Your task to perform on an android device: see creations saved in the google photos Image 0: 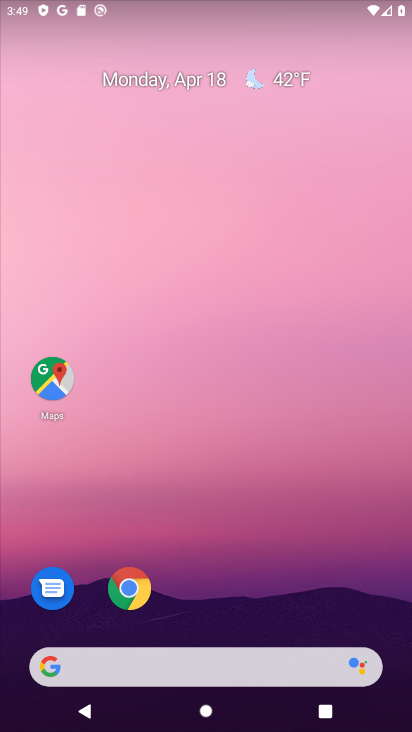
Step 0: drag from (220, 588) to (227, 161)
Your task to perform on an android device: see creations saved in the google photos Image 1: 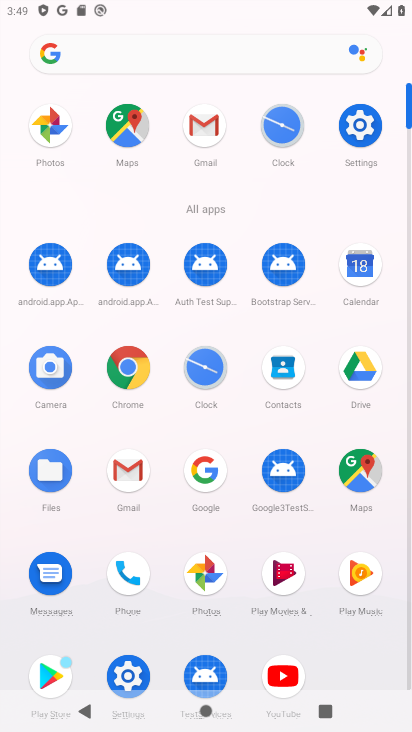
Step 1: click (52, 133)
Your task to perform on an android device: see creations saved in the google photos Image 2: 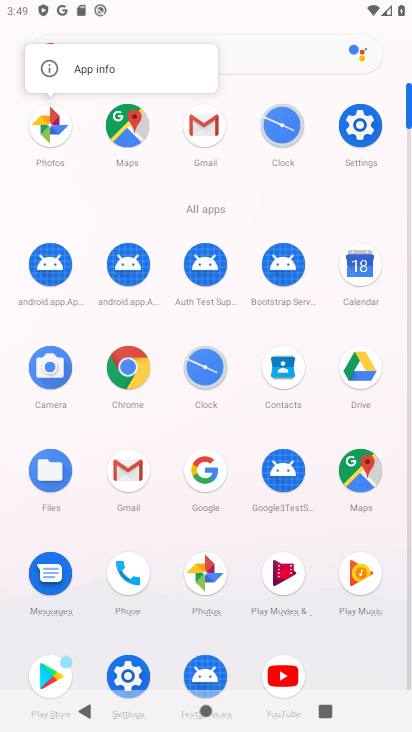
Step 2: click (71, 138)
Your task to perform on an android device: see creations saved in the google photos Image 3: 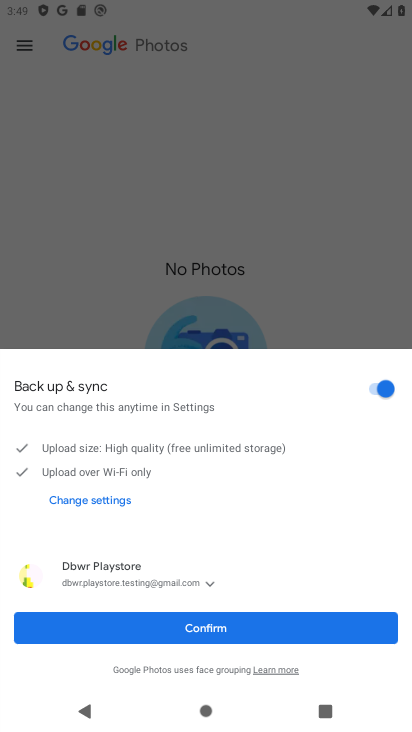
Step 3: click (217, 633)
Your task to perform on an android device: see creations saved in the google photos Image 4: 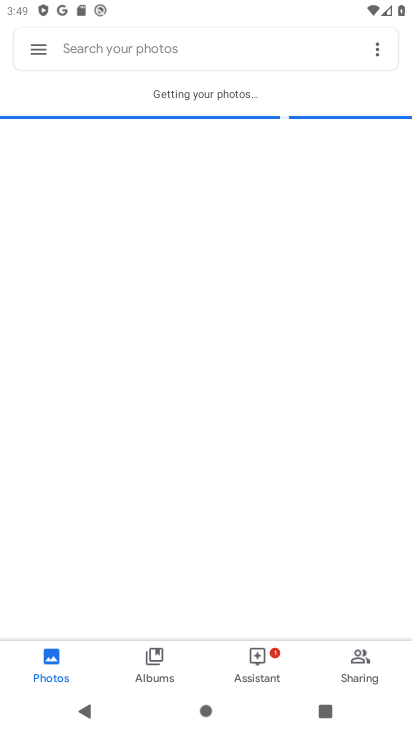
Step 4: click (117, 47)
Your task to perform on an android device: see creations saved in the google photos Image 5: 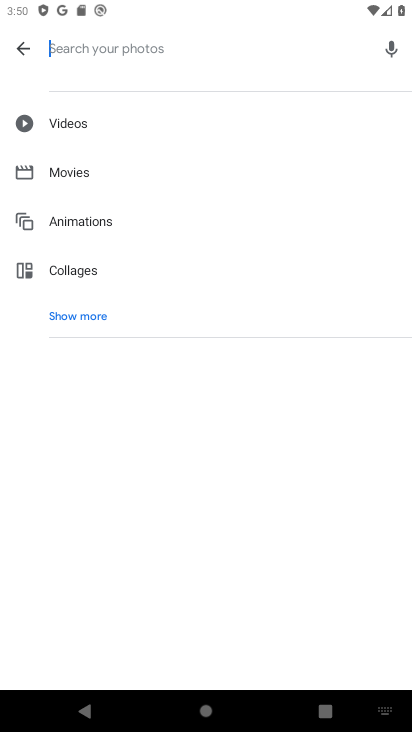
Step 5: click (83, 306)
Your task to perform on an android device: see creations saved in the google photos Image 6: 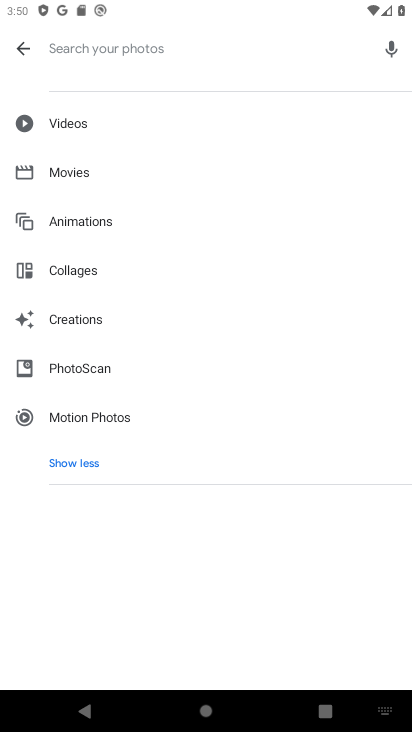
Step 6: drag from (111, 476) to (97, 312)
Your task to perform on an android device: see creations saved in the google photos Image 7: 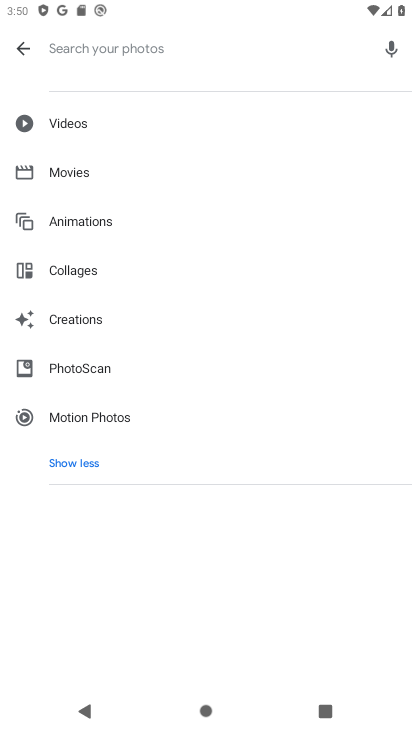
Step 7: click (93, 321)
Your task to perform on an android device: see creations saved in the google photos Image 8: 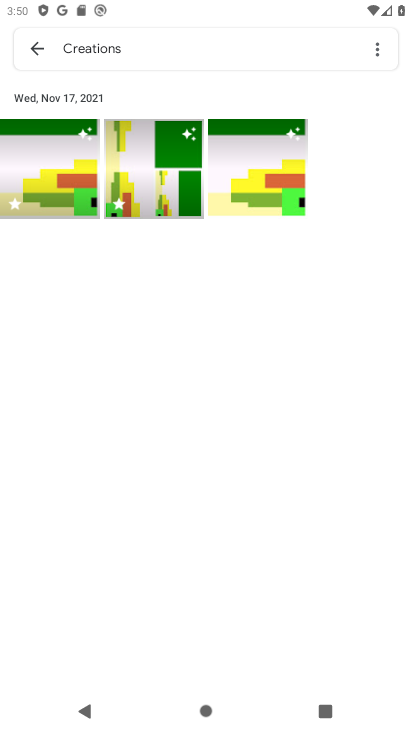
Step 8: task complete